Your task to perform on an android device: Go to location settings Image 0: 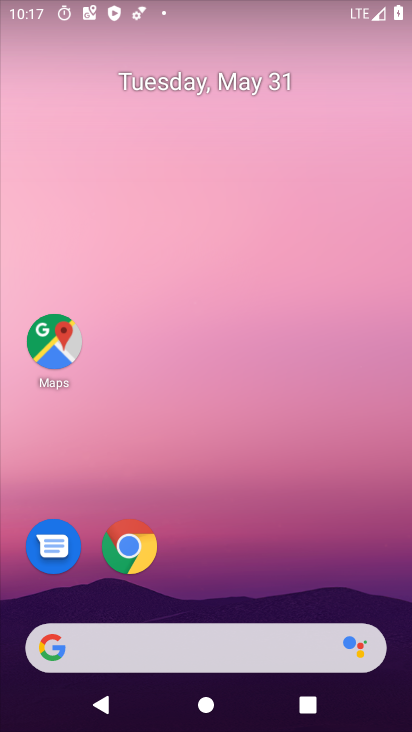
Step 0: drag from (288, 583) to (321, 78)
Your task to perform on an android device: Go to location settings Image 1: 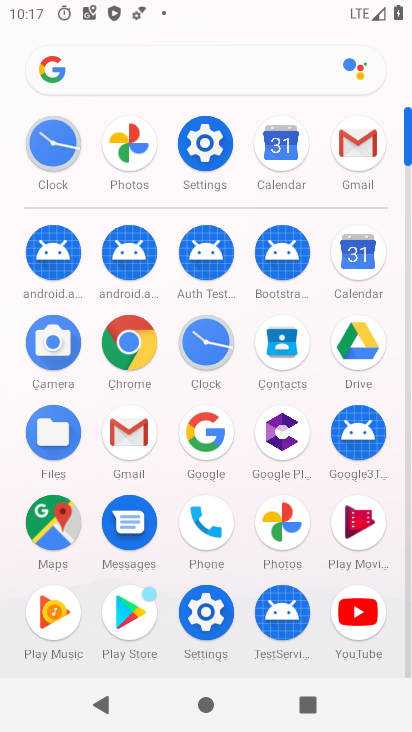
Step 1: click (219, 127)
Your task to perform on an android device: Go to location settings Image 2: 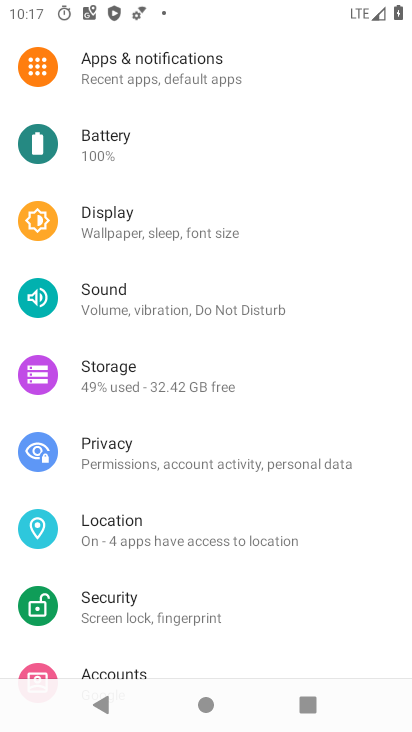
Step 2: click (122, 512)
Your task to perform on an android device: Go to location settings Image 3: 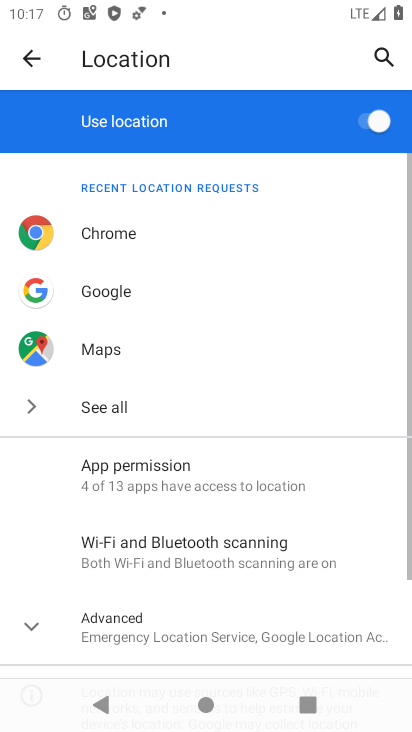
Step 3: task complete